Your task to perform on an android device: open chrome and create a bookmark for the current page Image 0: 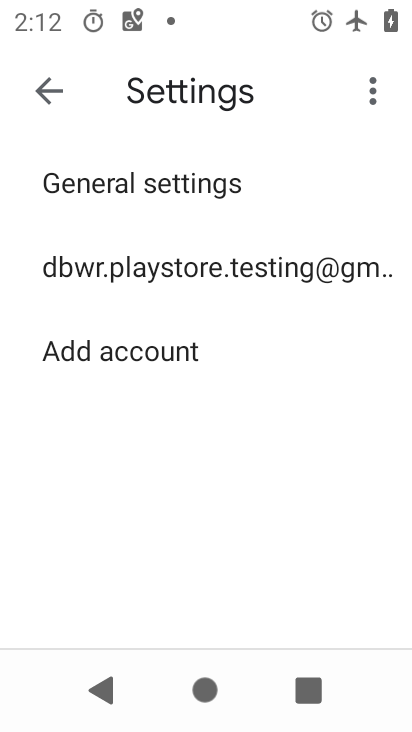
Step 0: press home button
Your task to perform on an android device: open chrome and create a bookmark for the current page Image 1: 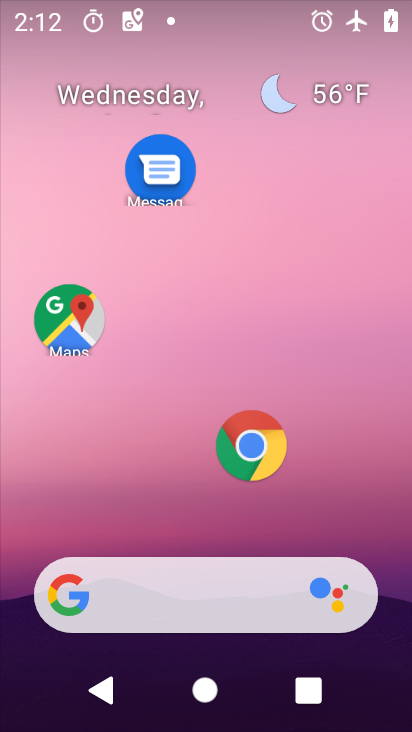
Step 1: drag from (196, 535) to (305, 156)
Your task to perform on an android device: open chrome and create a bookmark for the current page Image 2: 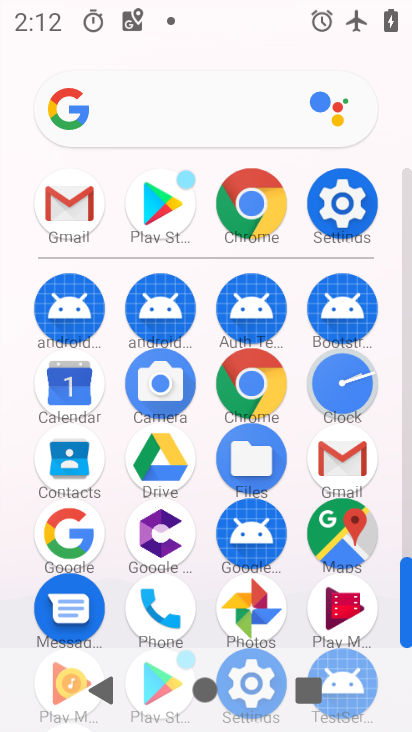
Step 2: drag from (199, 269) to (208, 87)
Your task to perform on an android device: open chrome and create a bookmark for the current page Image 3: 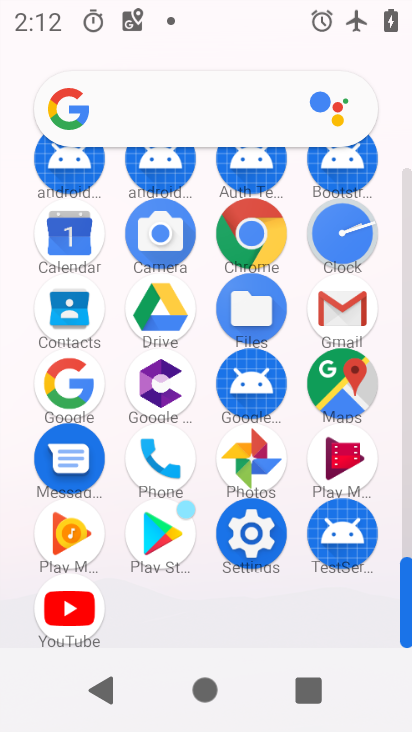
Step 3: click (256, 254)
Your task to perform on an android device: open chrome and create a bookmark for the current page Image 4: 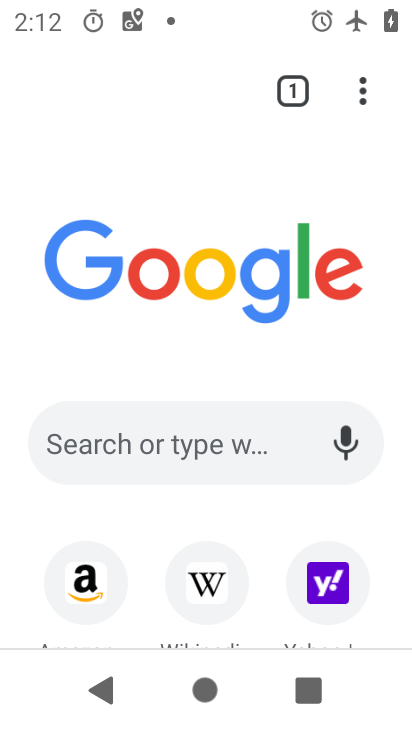
Step 4: click (366, 95)
Your task to perform on an android device: open chrome and create a bookmark for the current page Image 5: 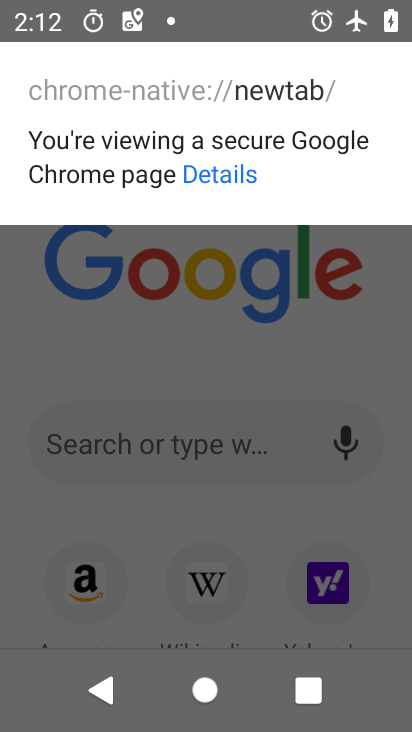
Step 5: click (312, 348)
Your task to perform on an android device: open chrome and create a bookmark for the current page Image 6: 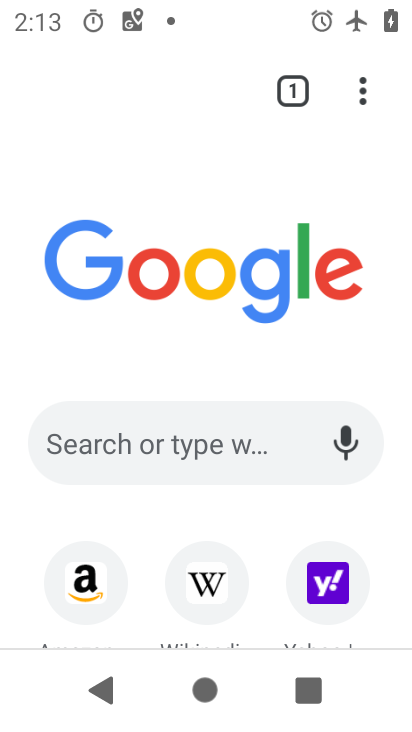
Step 6: click (363, 108)
Your task to perform on an android device: open chrome and create a bookmark for the current page Image 7: 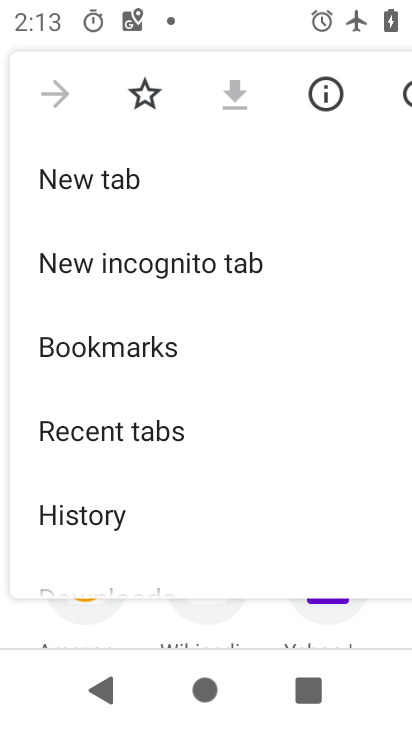
Step 7: click (132, 99)
Your task to perform on an android device: open chrome and create a bookmark for the current page Image 8: 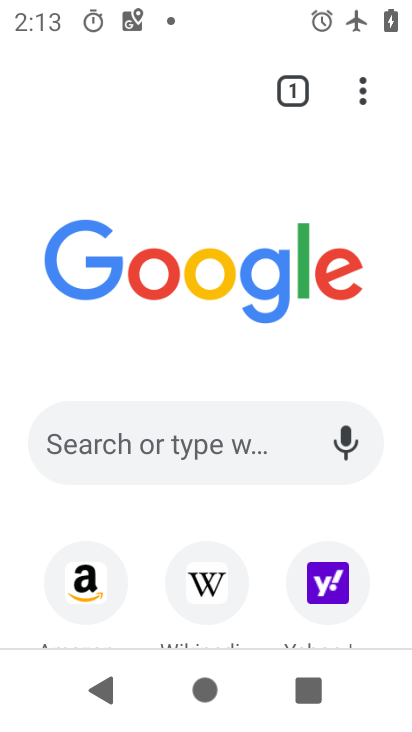
Step 8: task complete